Your task to perform on an android device: turn on airplane mode Image 0: 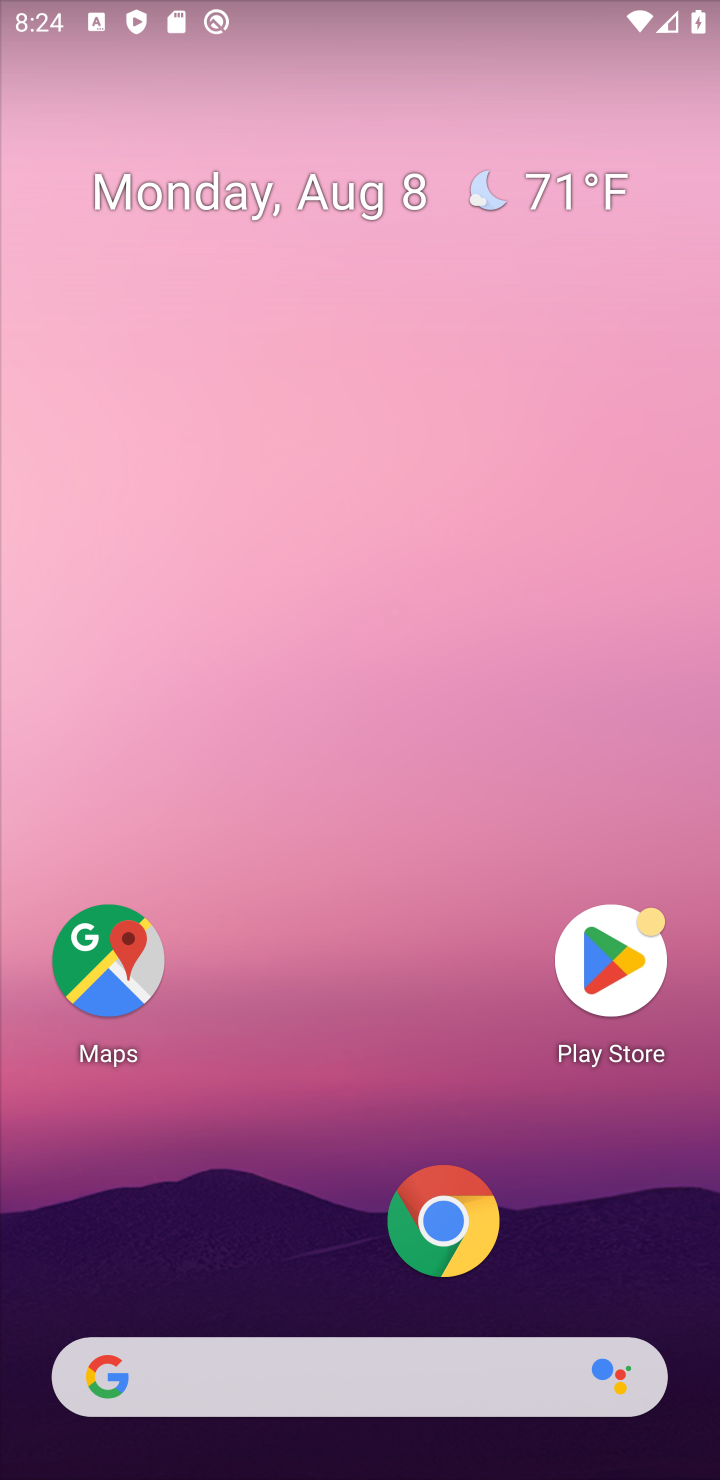
Step 0: drag from (411, 18) to (481, 503)
Your task to perform on an android device: turn on airplane mode Image 1: 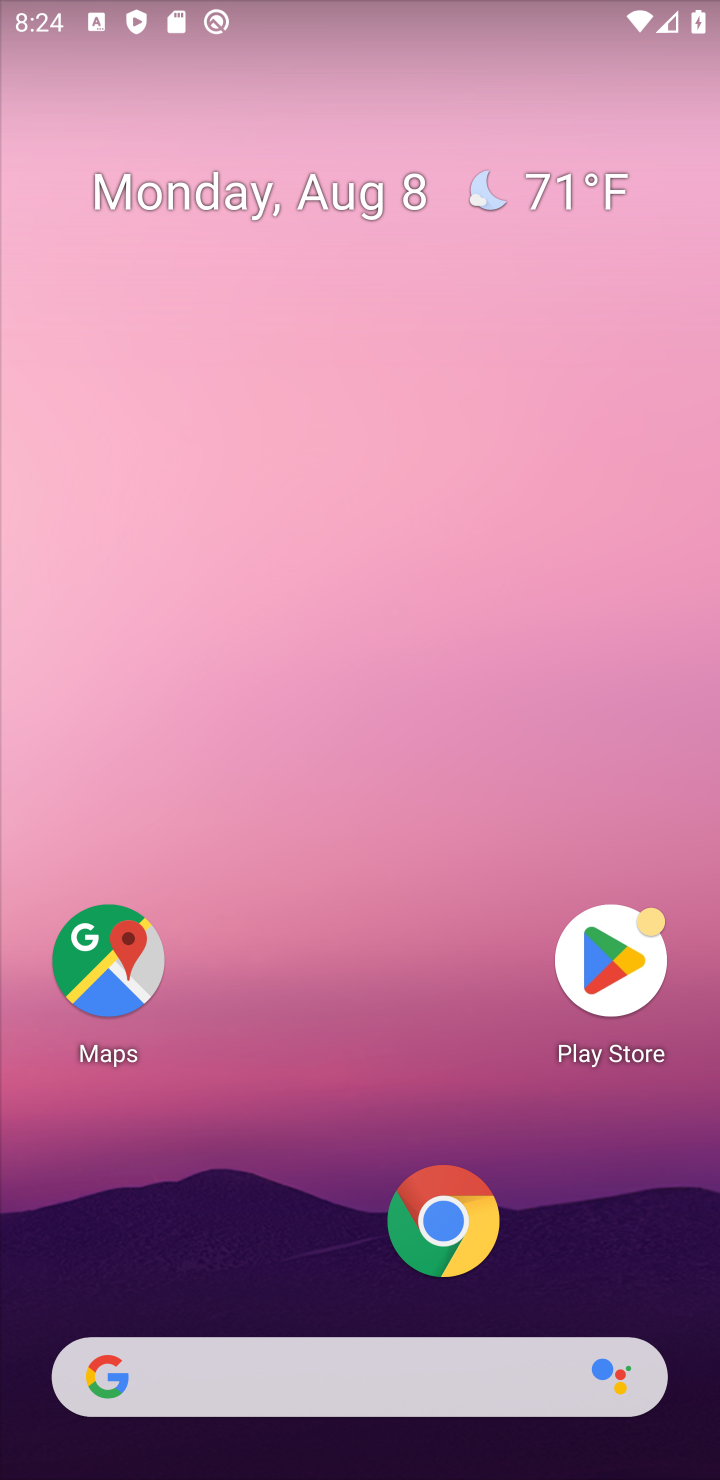
Step 1: drag from (369, 4) to (258, 1100)
Your task to perform on an android device: turn on airplane mode Image 2: 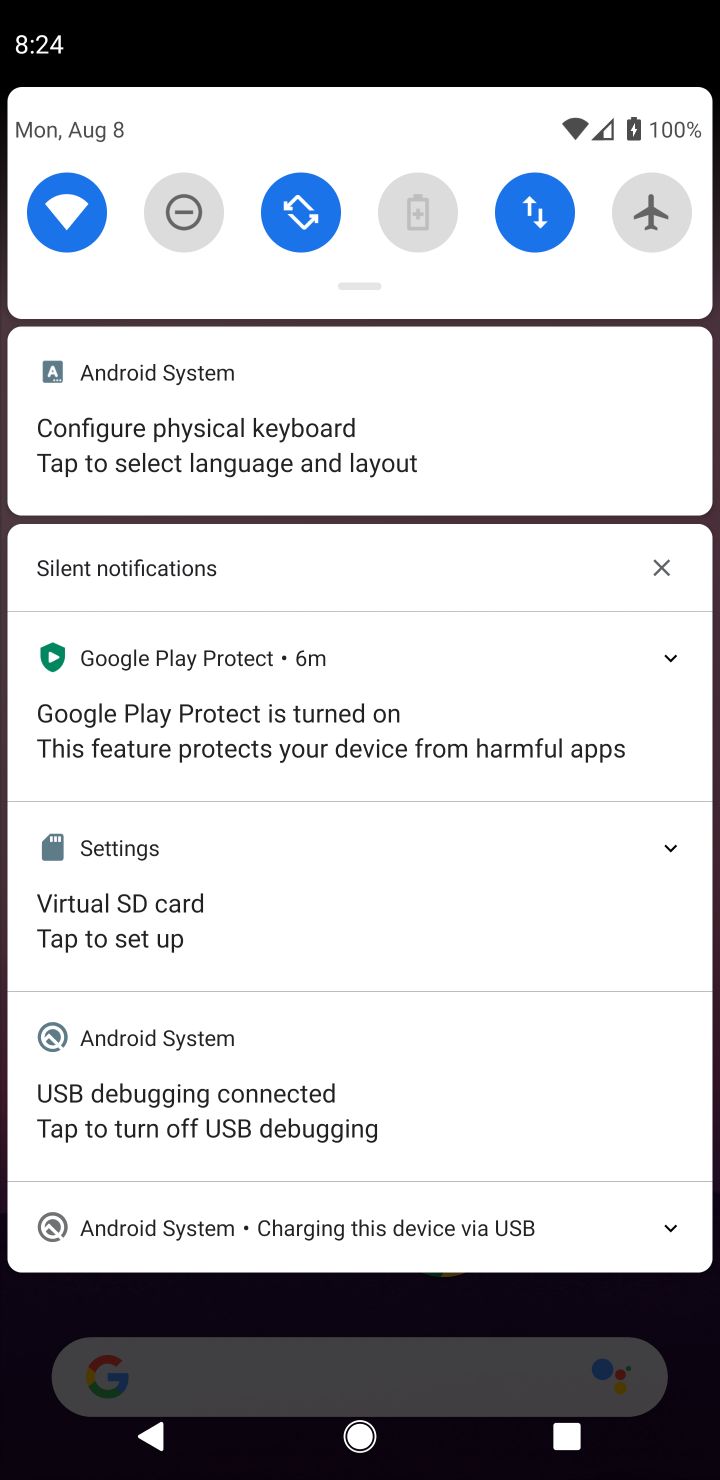
Step 2: click (660, 224)
Your task to perform on an android device: turn on airplane mode Image 3: 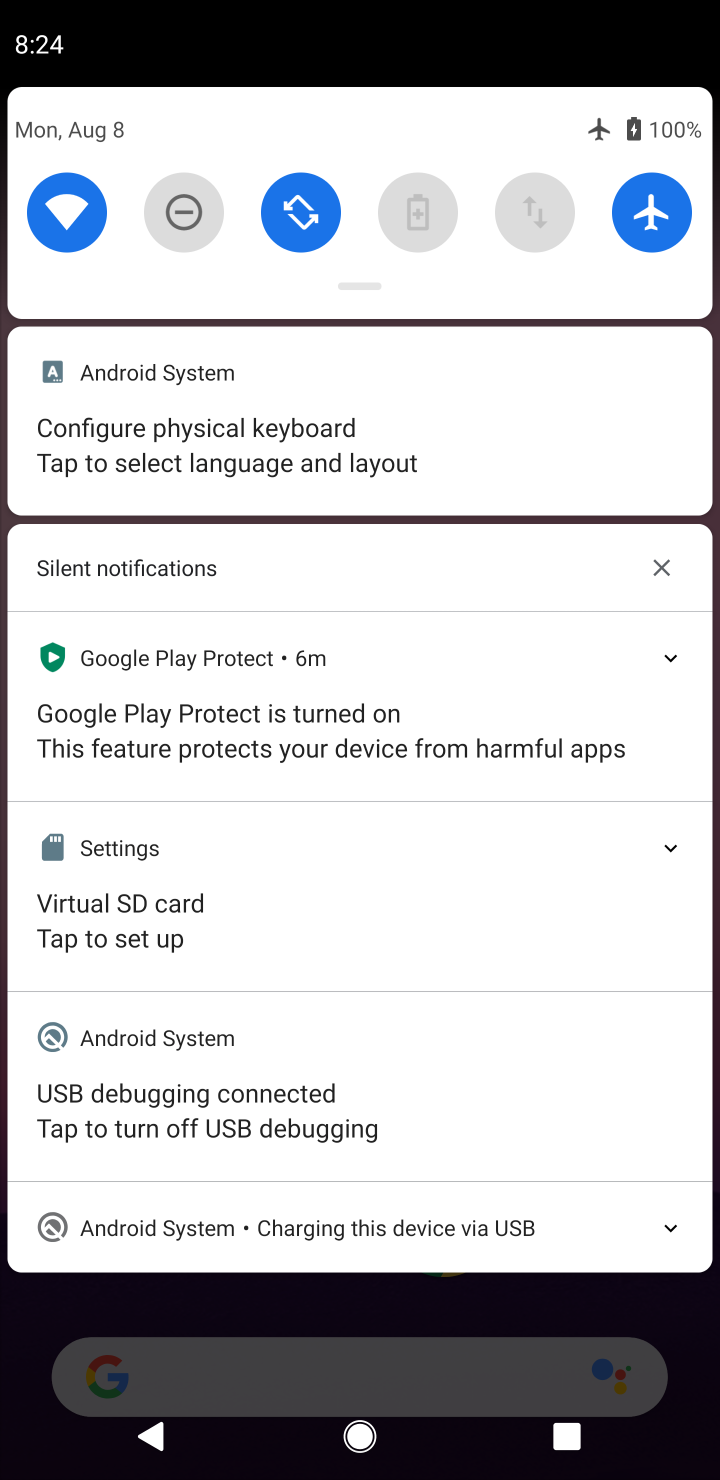
Step 3: task complete